Your task to perform on an android device: View the shopping cart on ebay. Add usb-a to the cart on ebay Image 0: 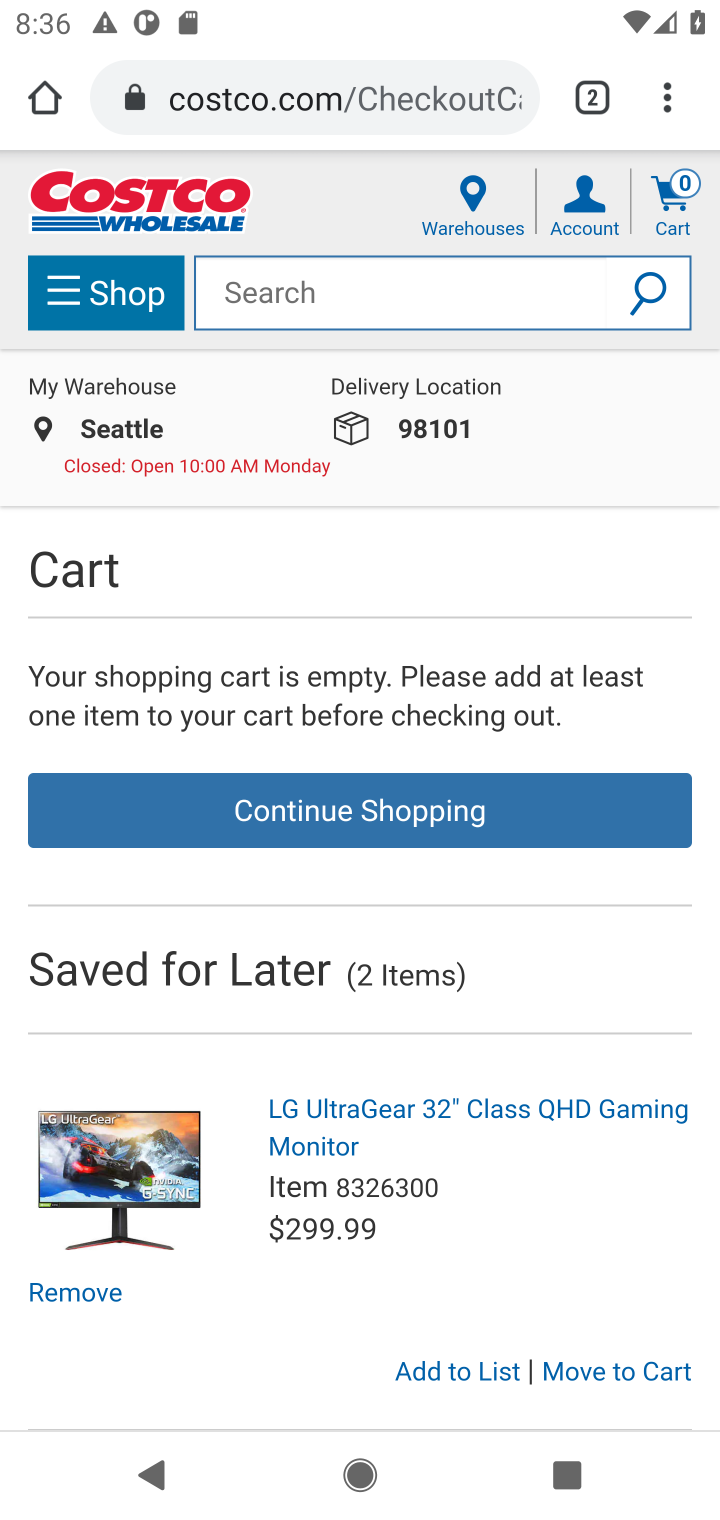
Step 0: click (276, 92)
Your task to perform on an android device: View the shopping cart on ebay. Add usb-a to the cart on ebay Image 1: 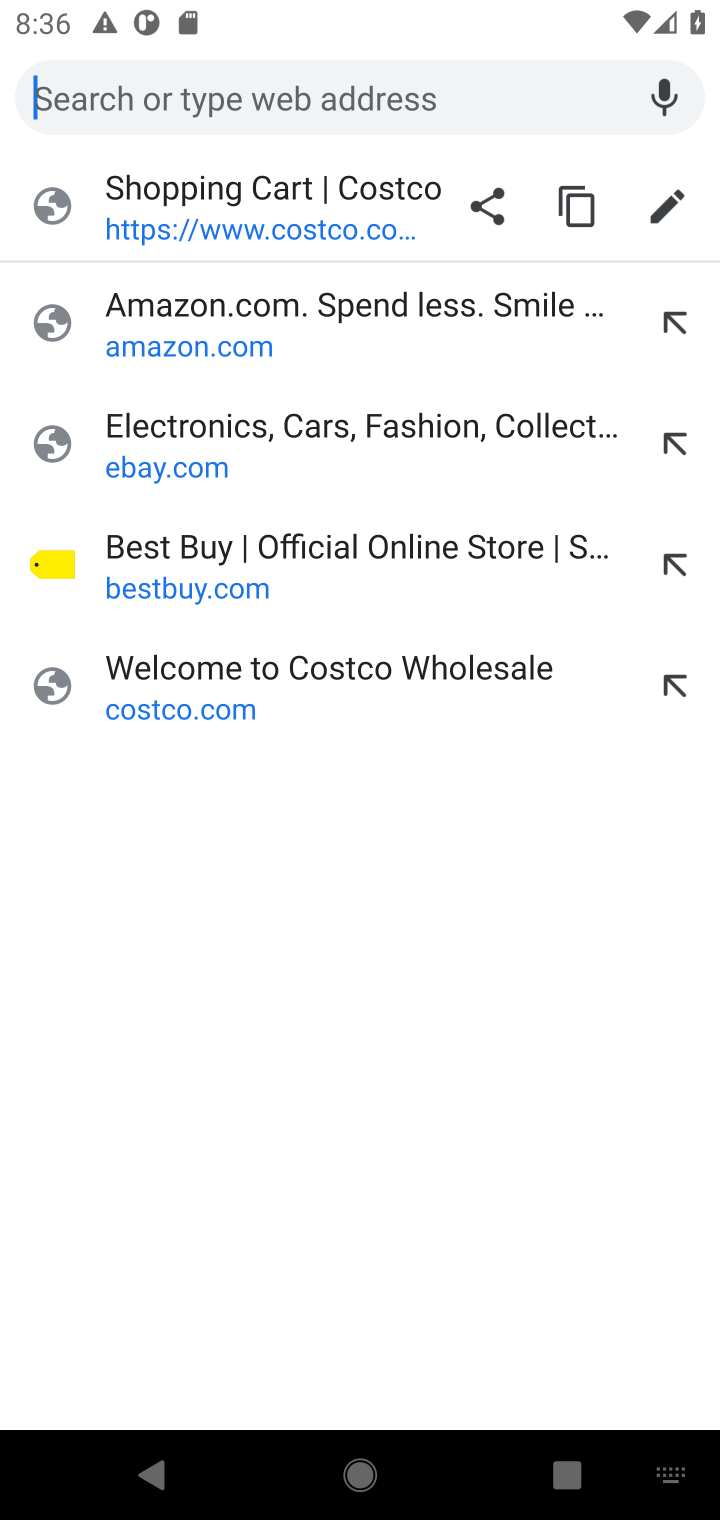
Step 1: click (144, 470)
Your task to perform on an android device: View the shopping cart on ebay. Add usb-a to the cart on ebay Image 2: 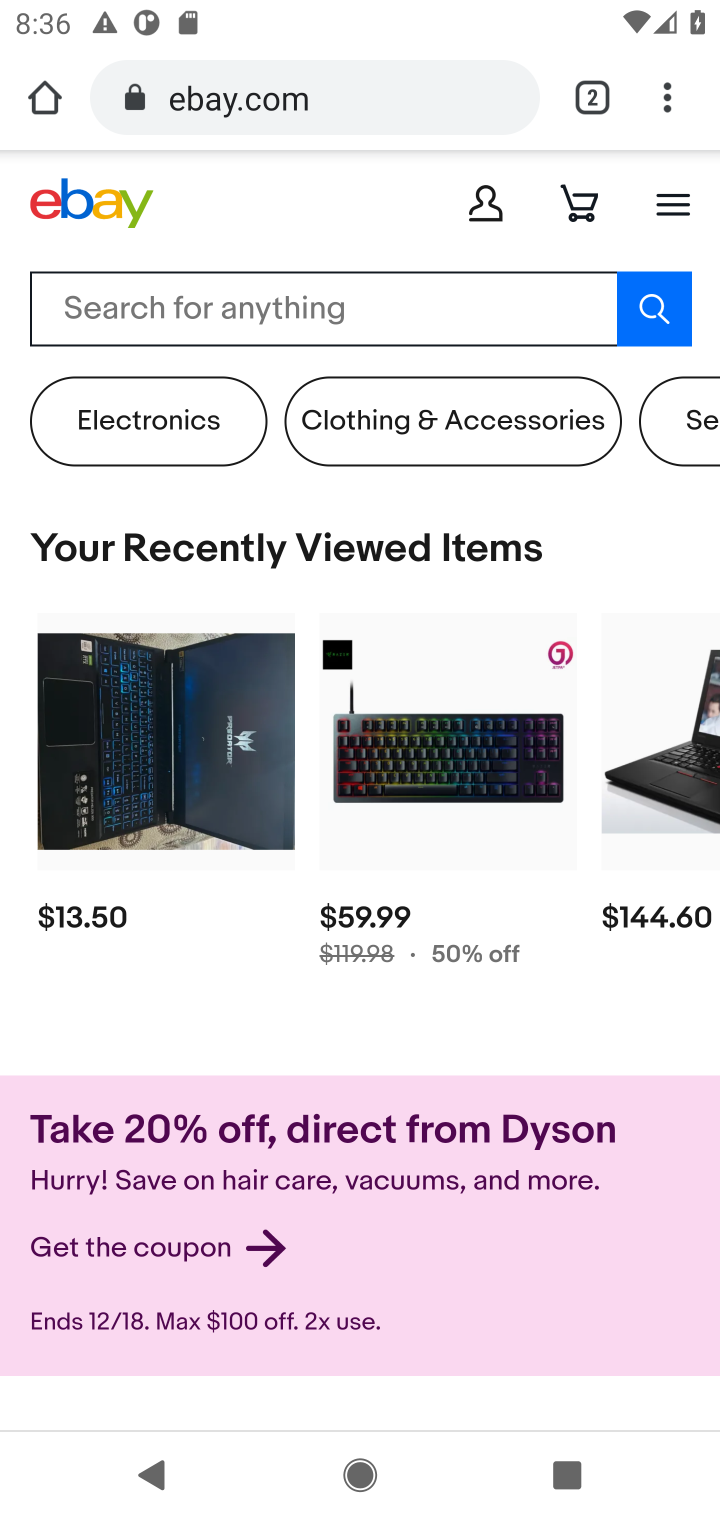
Step 2: click (581, 200)
Your task to perform on an android device: View the shopping cart on ebay. Add usb-a to the cart on ebay Image 3: 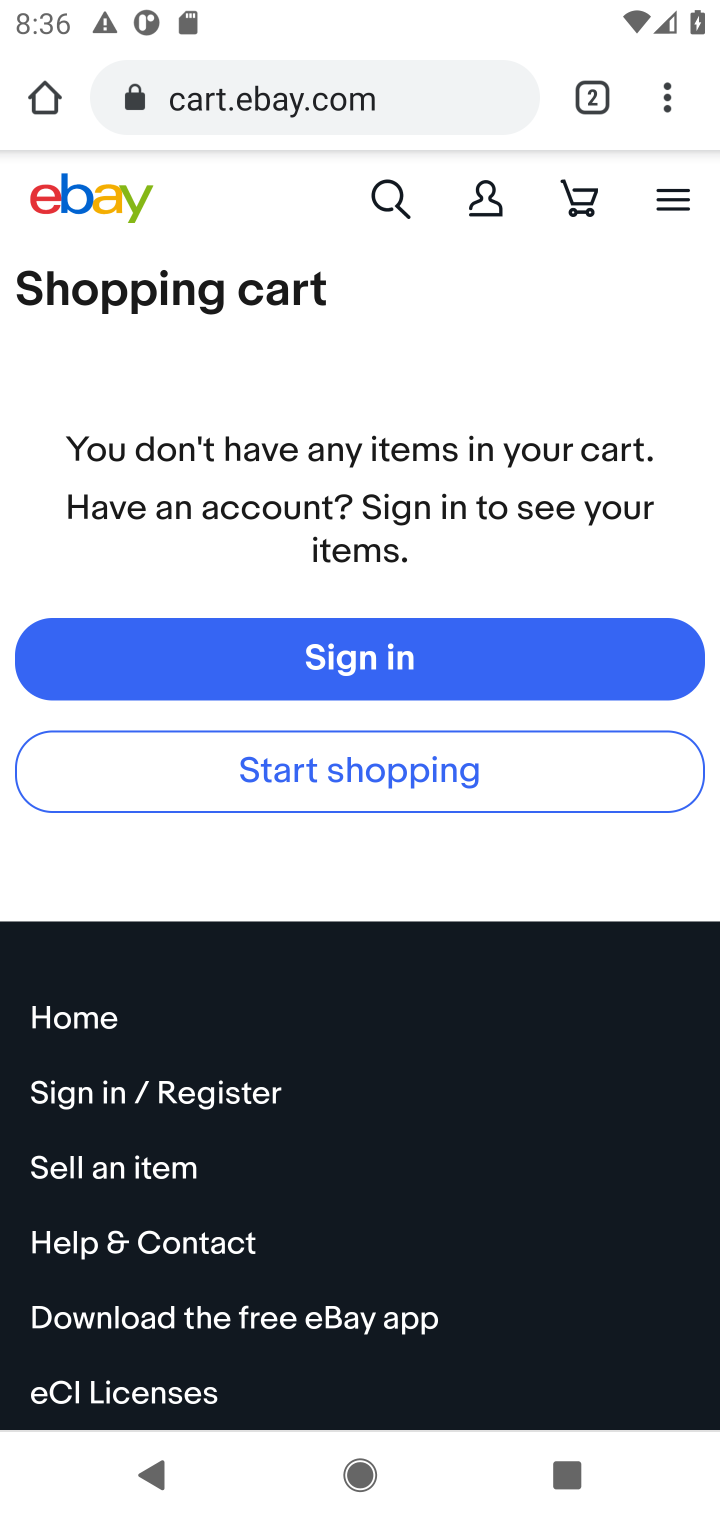
Step 3: click (383, 194)
Your task to perform on an android device: View the shopping cart on ebay. Add usb-a to the cart on ebay Image 4: 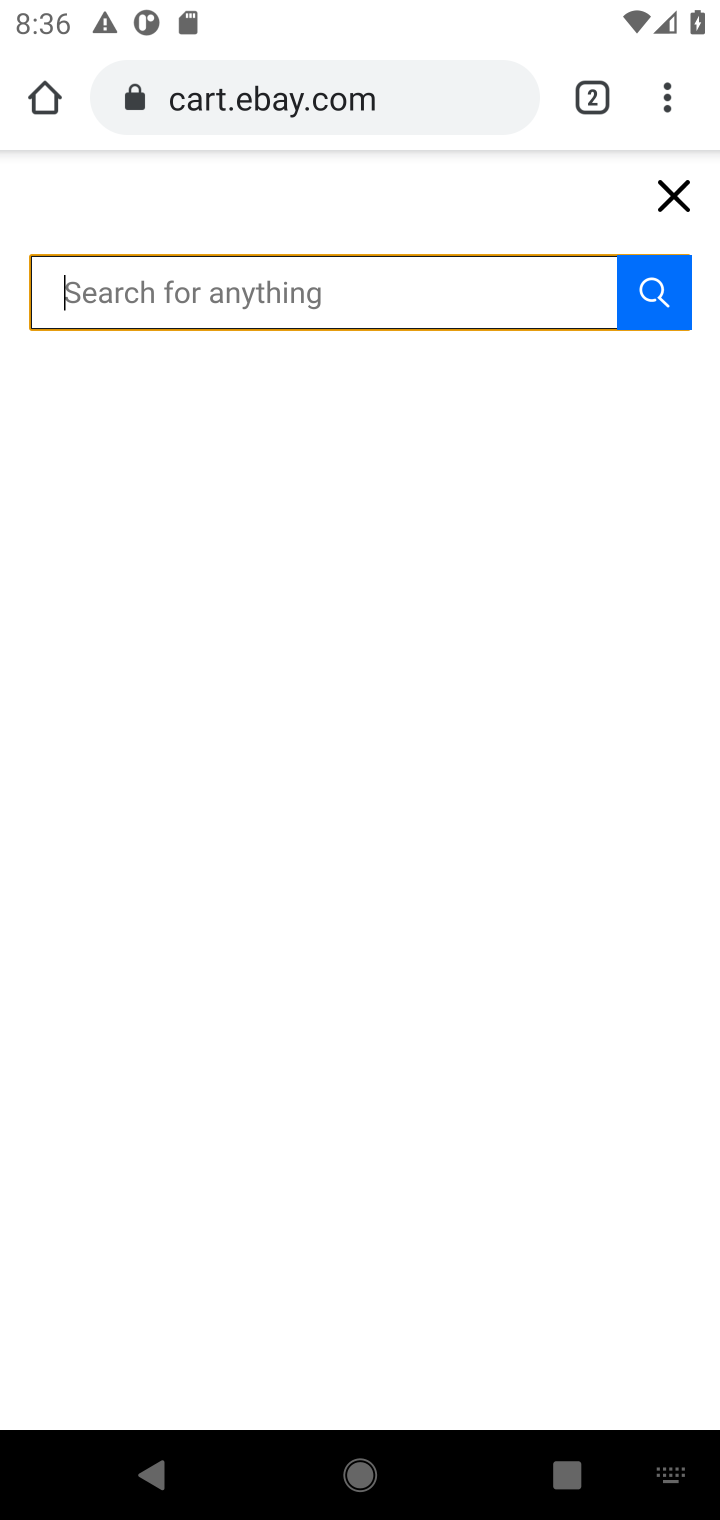
Step 4: type "usb-a"
Your task to perform on an android device: View the shopping cart on ebay. Add usb-a to the cart on ebay Image 5: 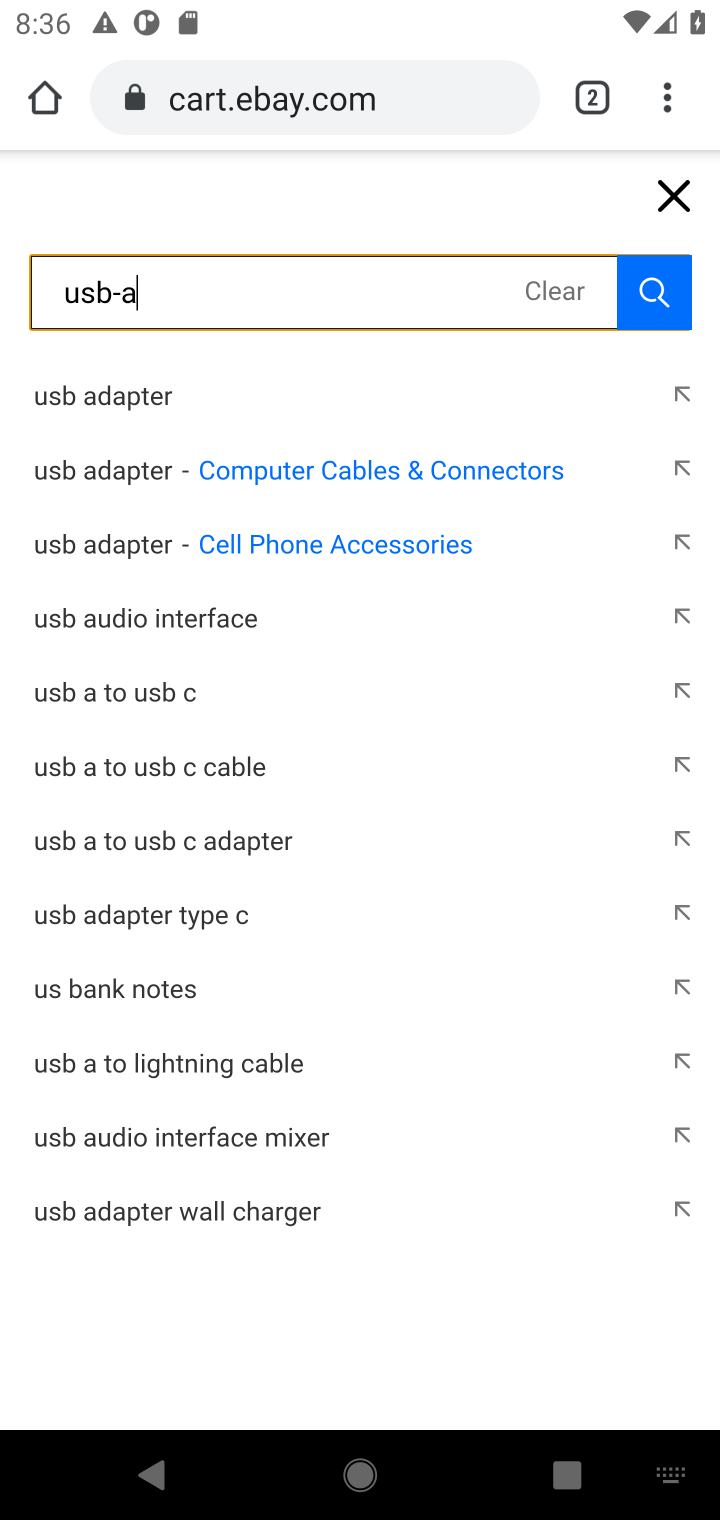
Step 5: click (647, 297)
Your task to perform on an android device: View the shopping cart on ebay. Add usb-a to the cart on ebay Image 6: 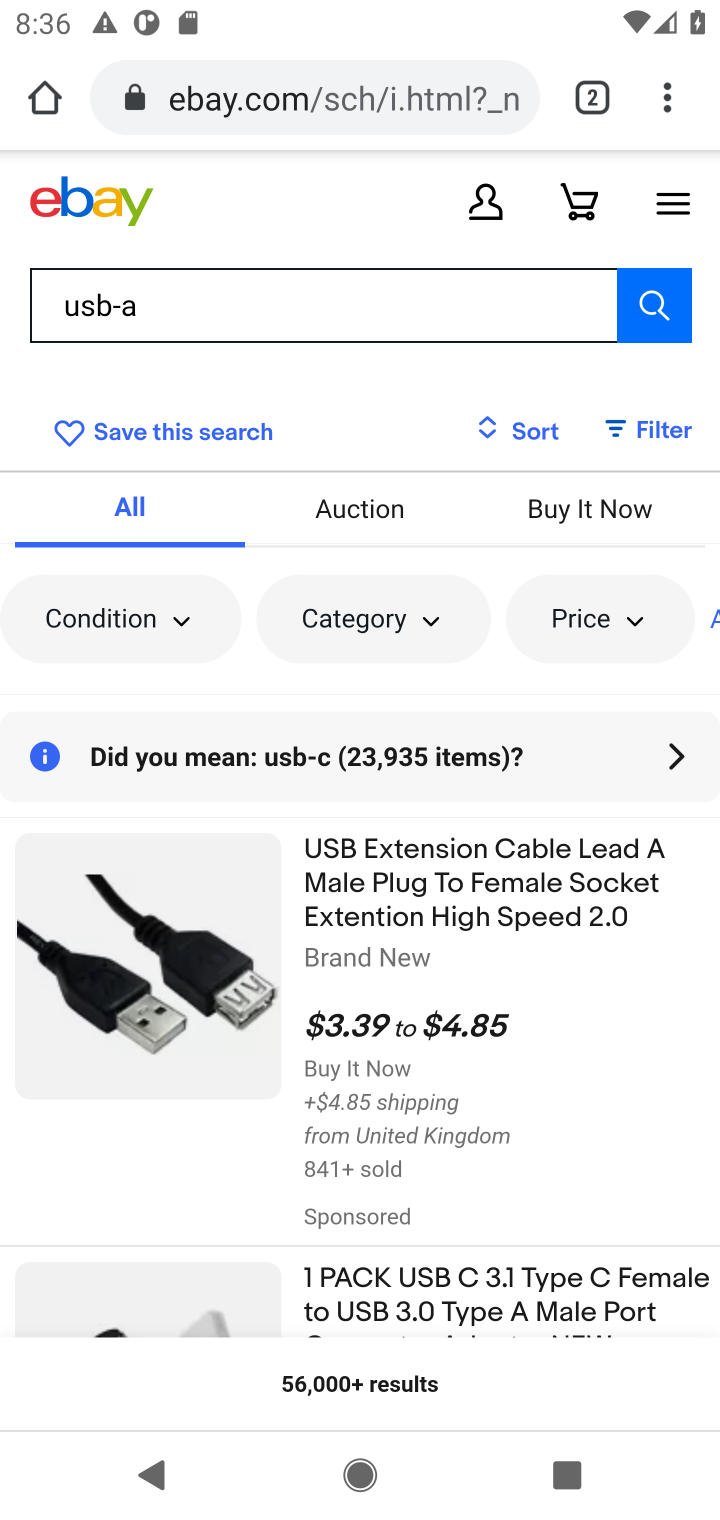
Step 6: drag from (335, 1099) to (345, 831)
Your task to perform on an android device: View the shopping cart on ebay. Add usb-a to the cart on ebay Image 7: 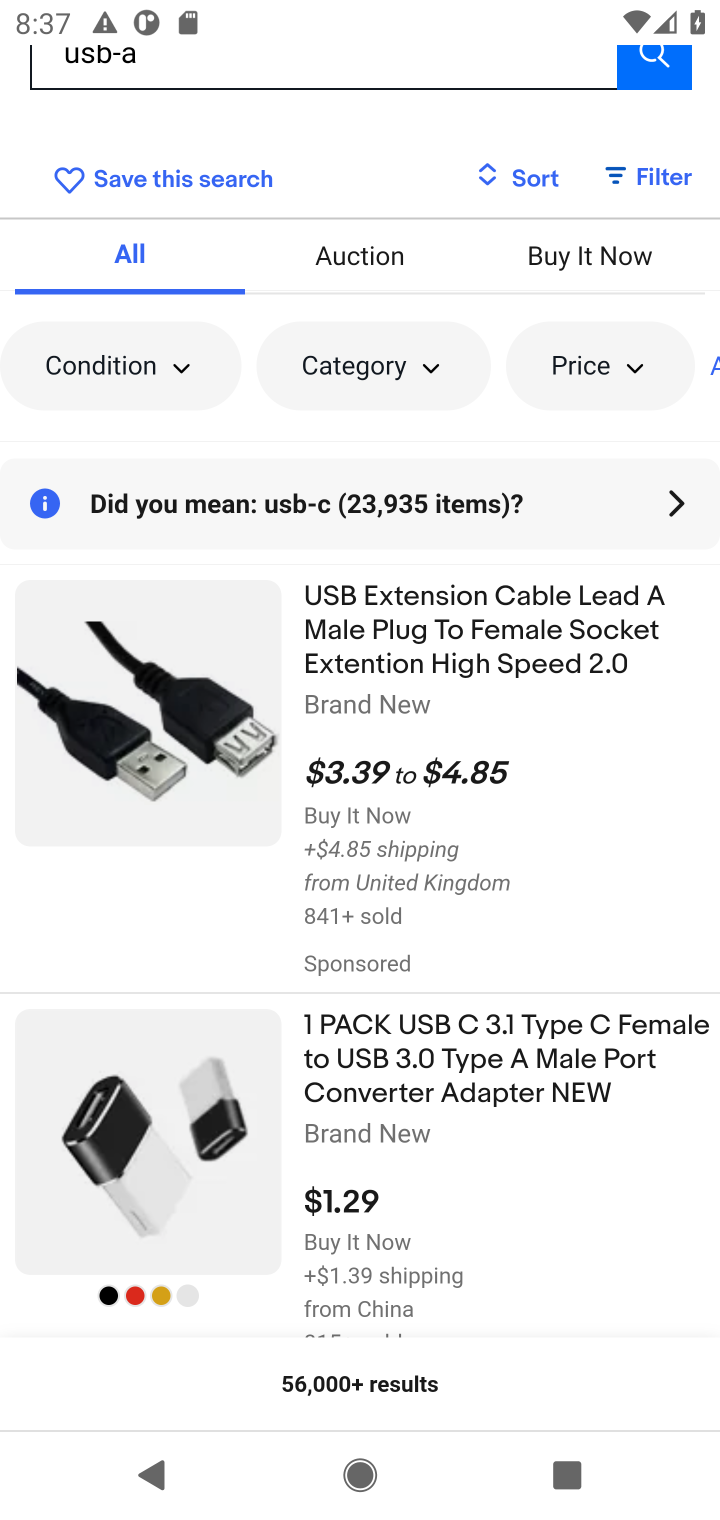
Step 7: click (357, 632)
Your task to perform on an android device: View the shopping cart on ebay. Add usb-a to the cart on ebay Image 8: 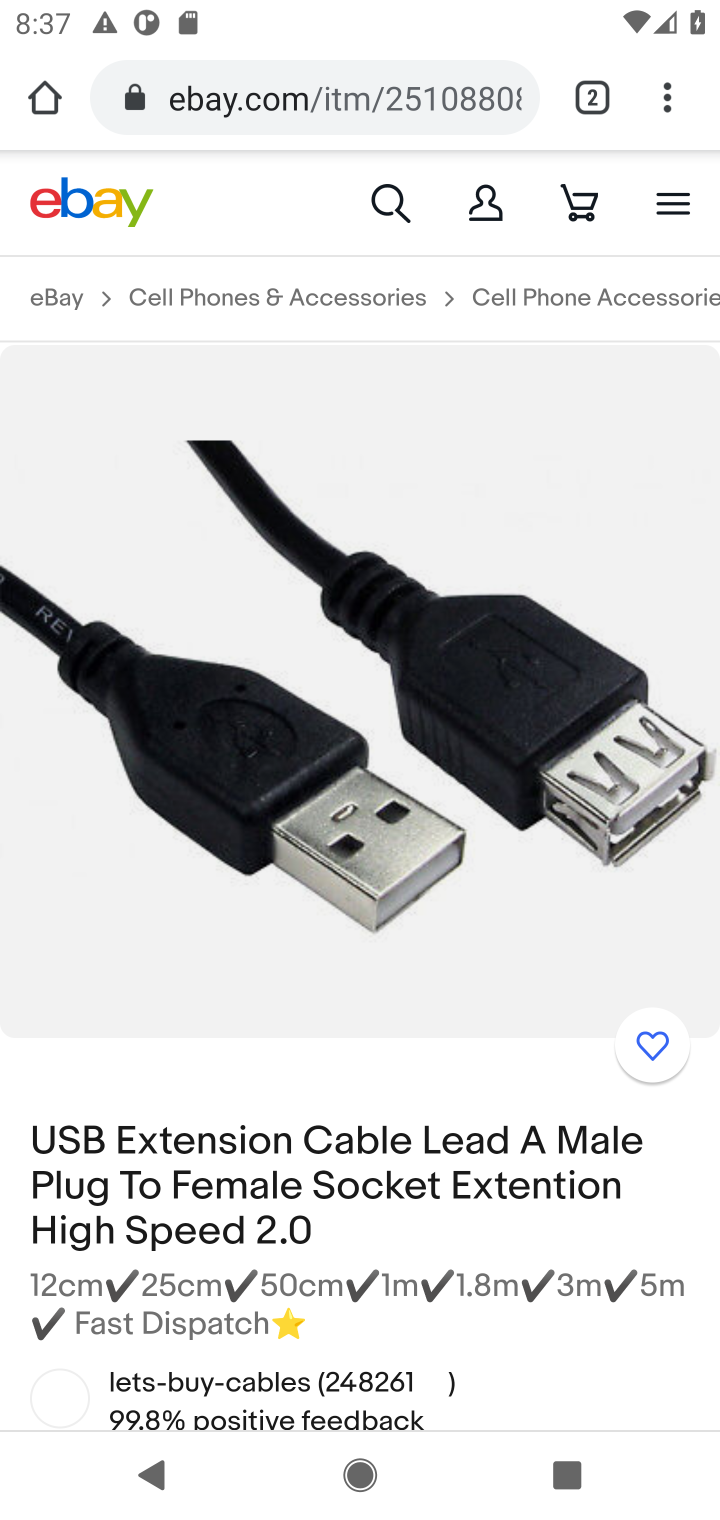
Step 8: drag from (361, 1059) to (357, 379)
Your task to perform on an android device: View the shopping cart on ebay. Add usb-a to the cart on ebay Image 9: 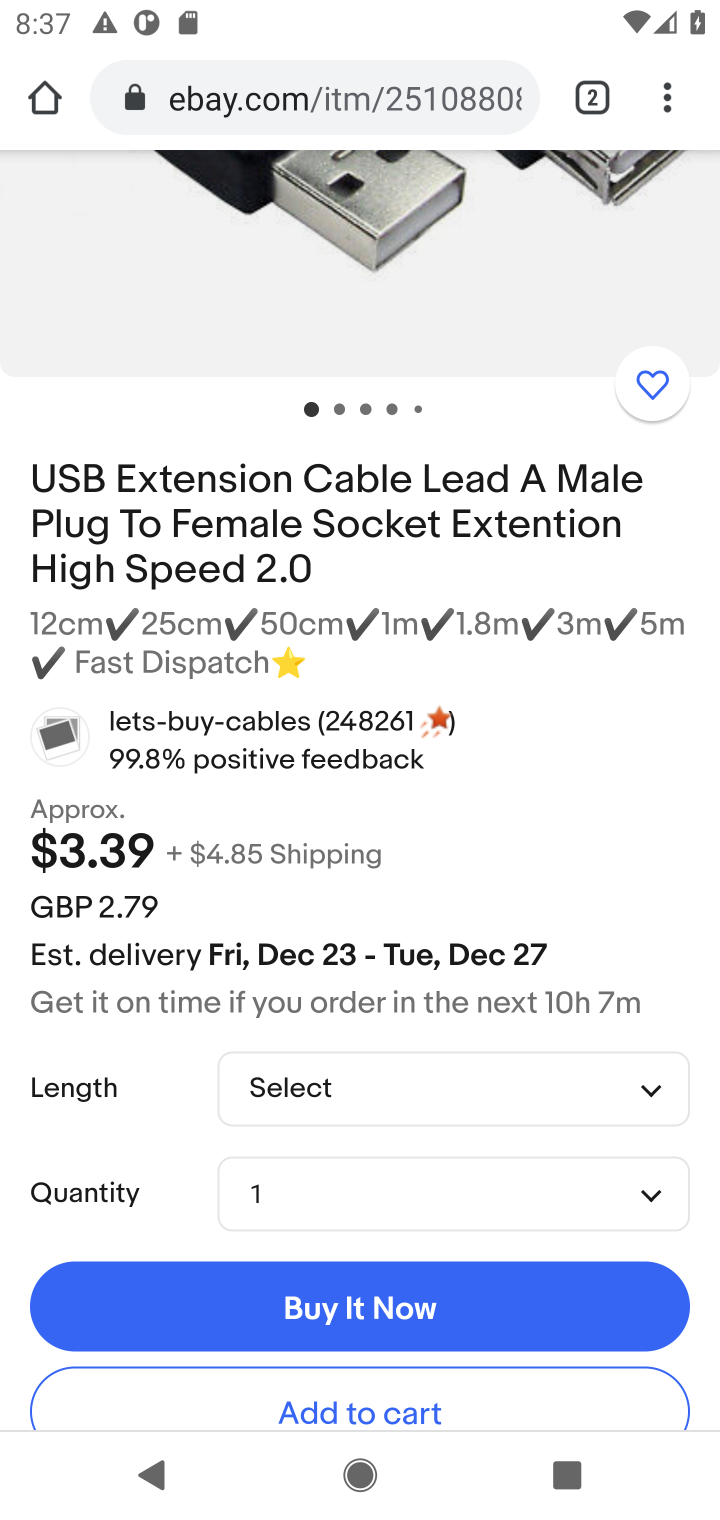
Step 9: drag from (354, 1065) to (358, 675)
Your task to perform on an android device: View the shopping cart on ebay. Add usb-a to the cart on ebay Image 10: 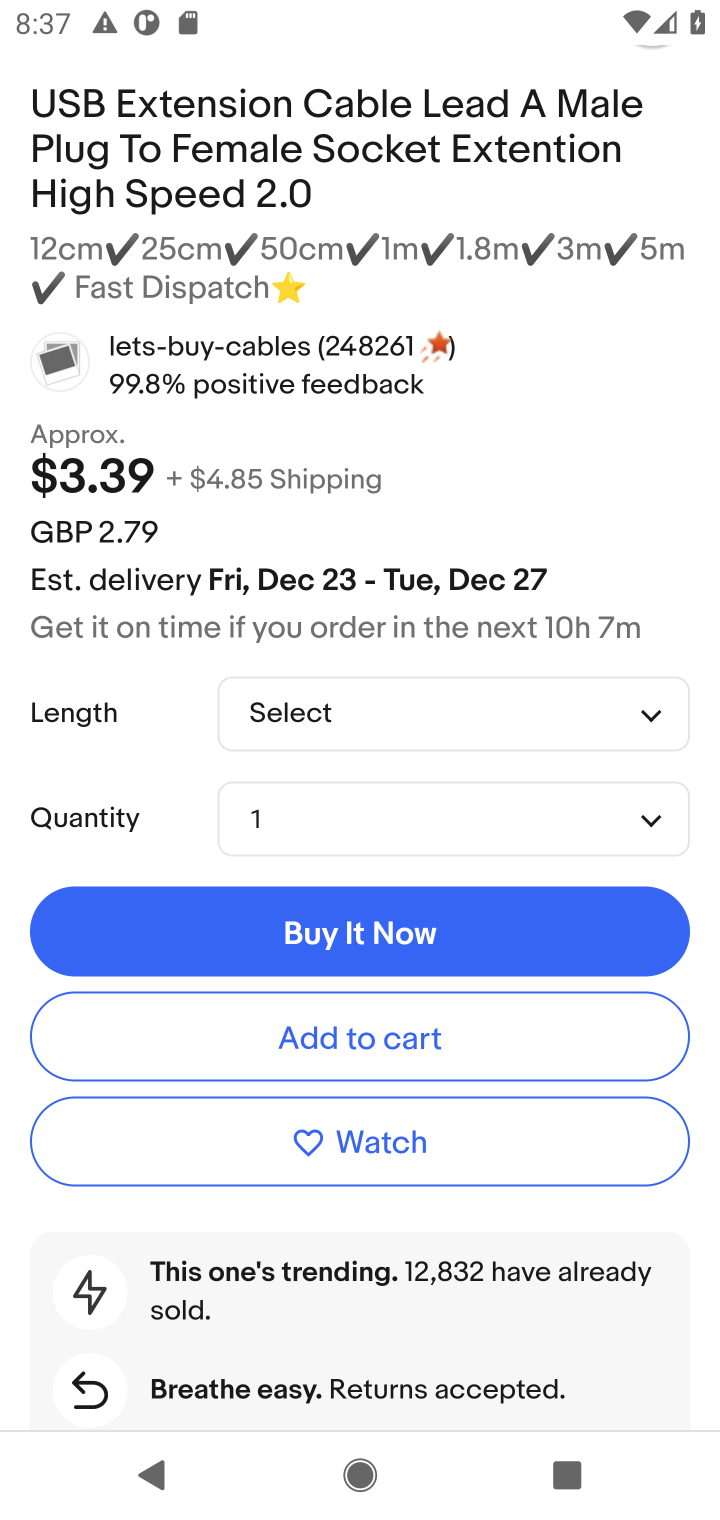
Step 10: click (306, 1049)
Your task to perform on an android device: View the shopping cart on ebay. Add usb-a to the cart on ebay Image 11: 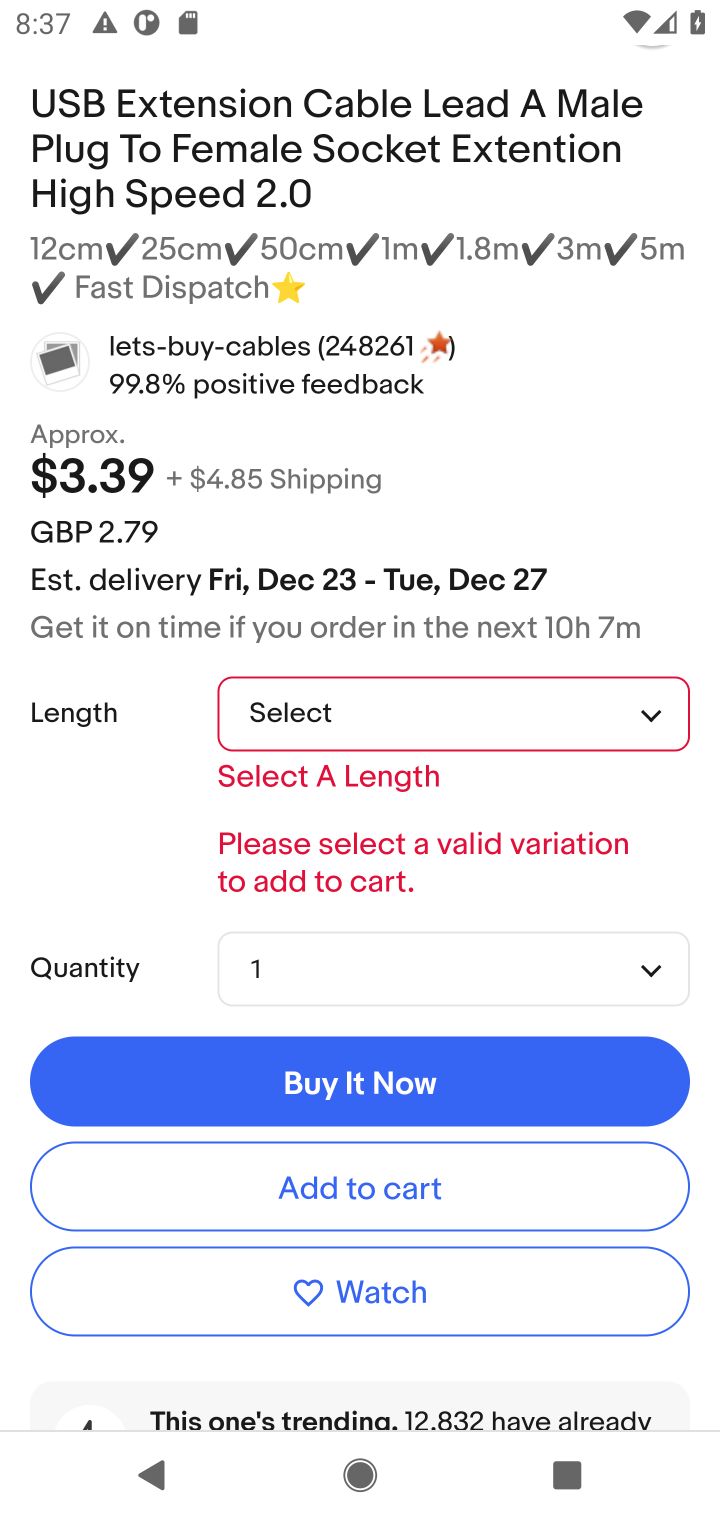
Step 11: click (655, 716)
Your task to perform on an android device: View the shopping cart on ebay. Add usb-a to the cart on ebay Image 12: 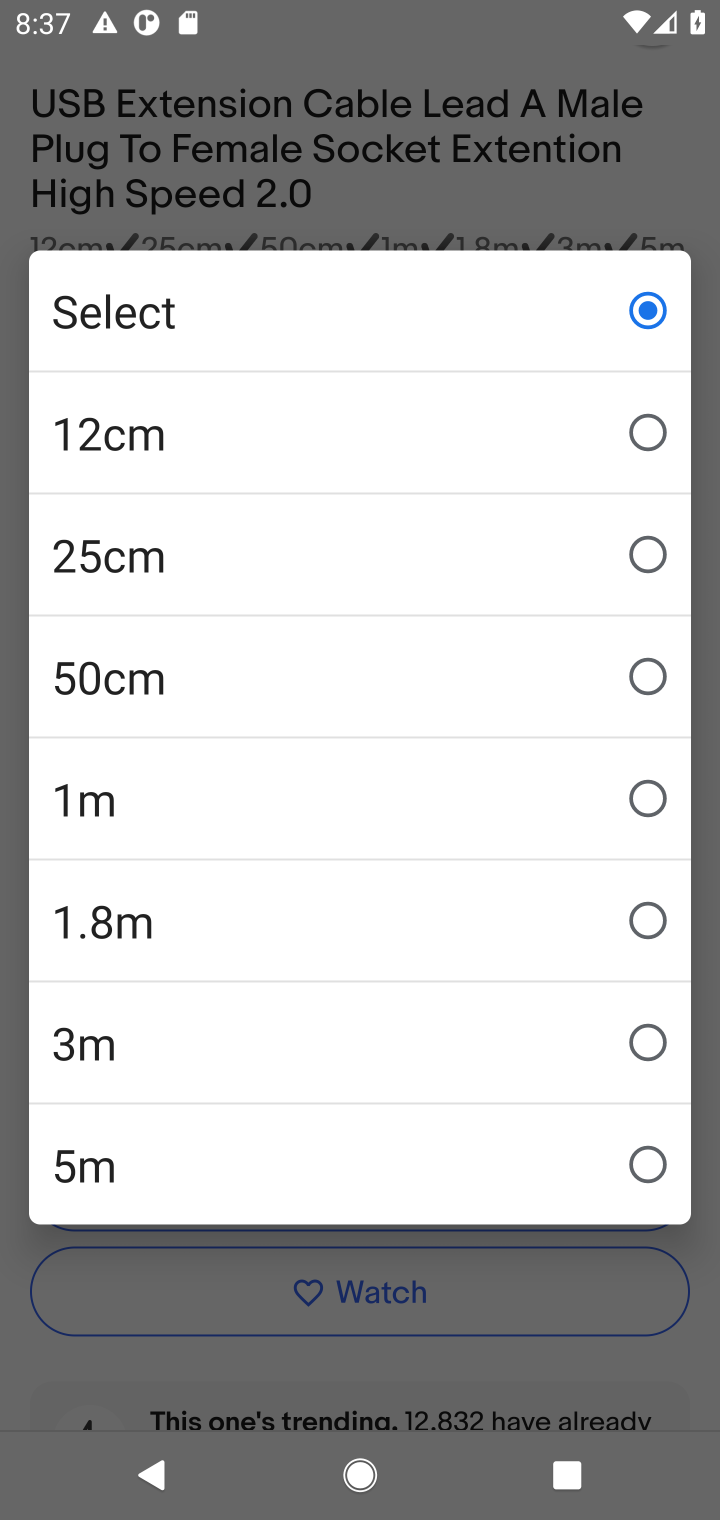
Step 12: click (121, 433)
Your task to perform on an android device: View the shopping cart on ebay. Add usb-a to the cart on ebay Image 13: 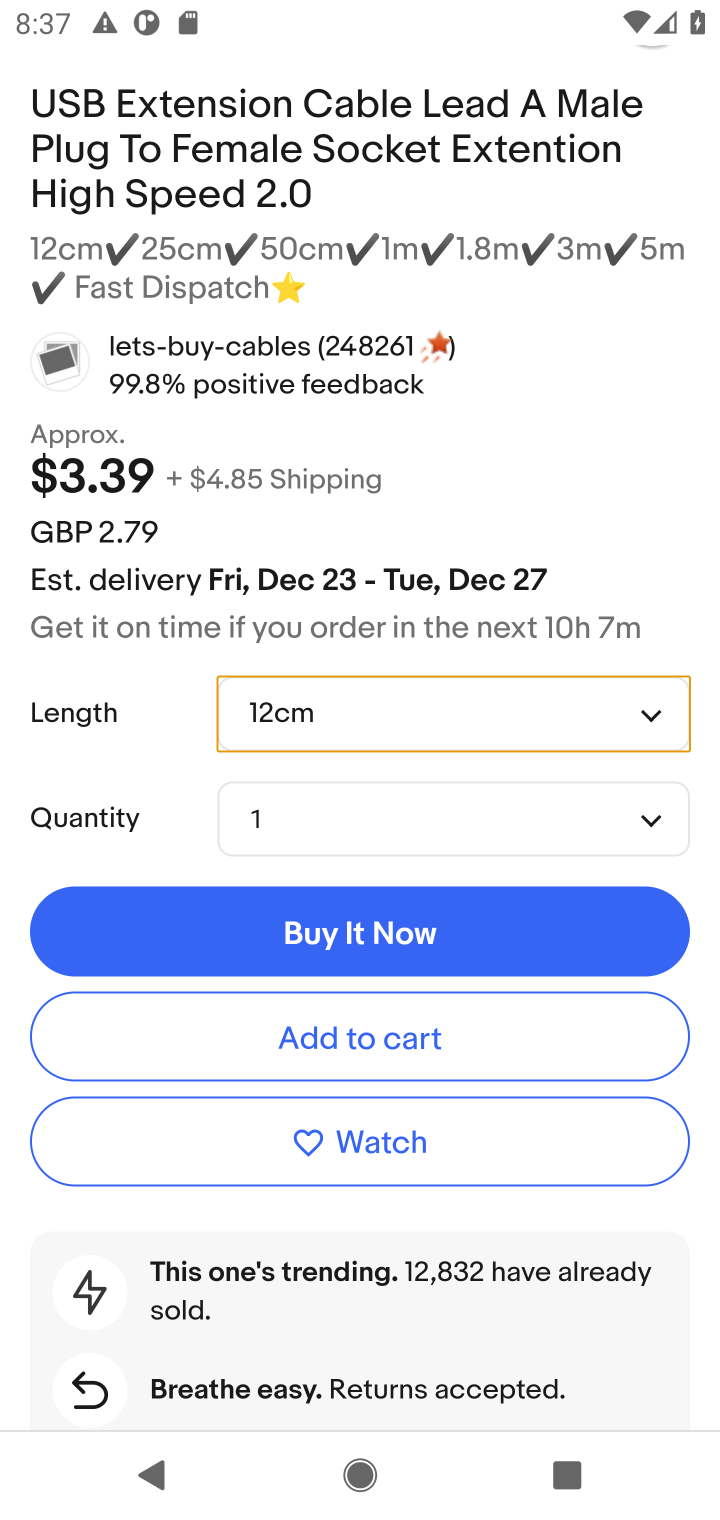
Step 13: click (302, 1057)
Your task to perform on an android device: View the shopping cart on ebay. Add usb-a to the cart on ebay Image 14: 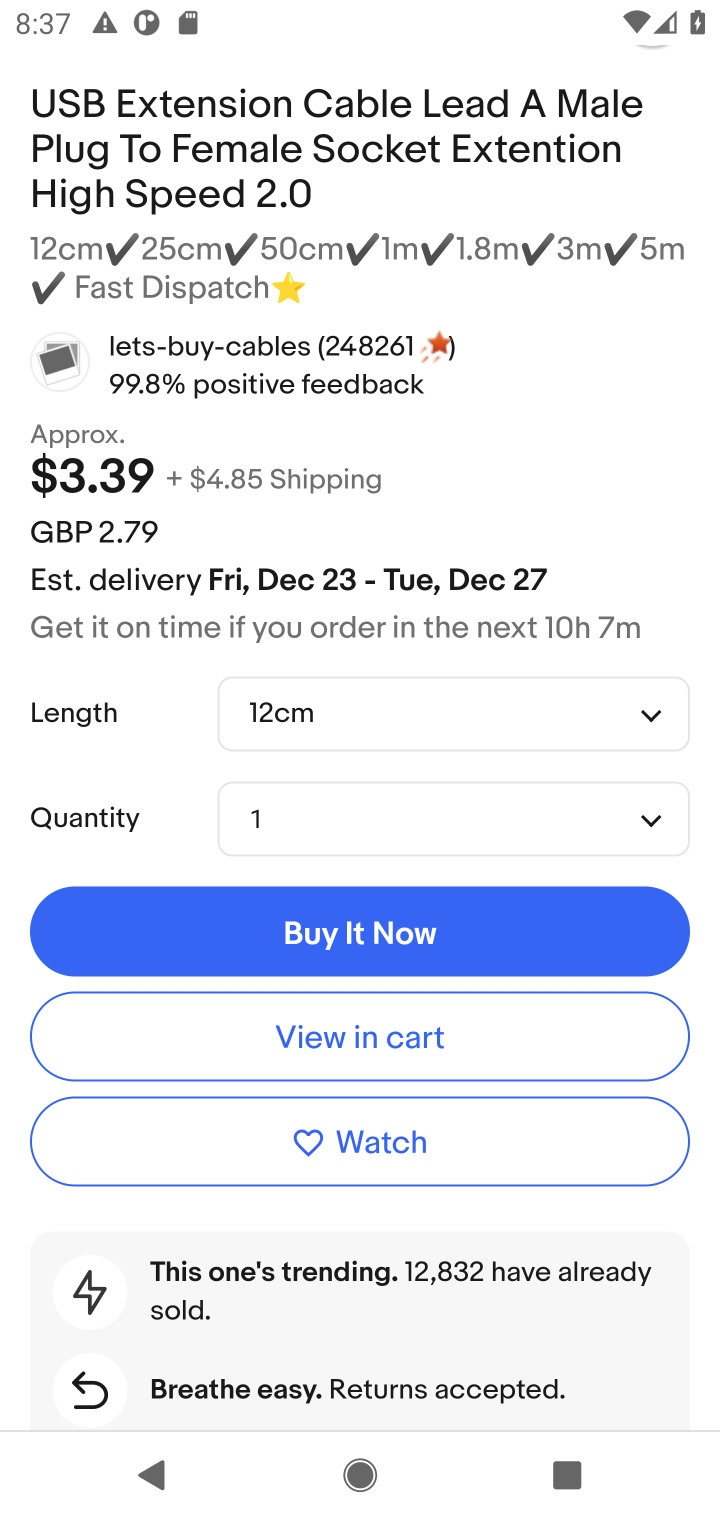
Step 14: task complete